Your task to perform on an android device: open the mobile data screen to see how much data has been used Image 0: 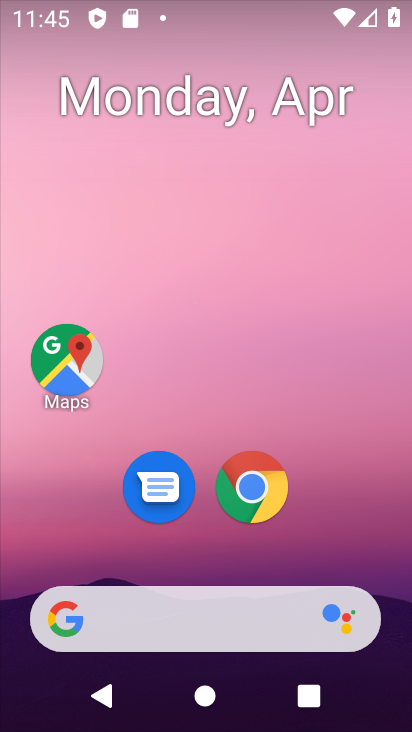
Step 0: drag from (382, 485) to (239, 128)
Your task to perform on an android device: open the mobile data screen to see how much data has been used Image 1: 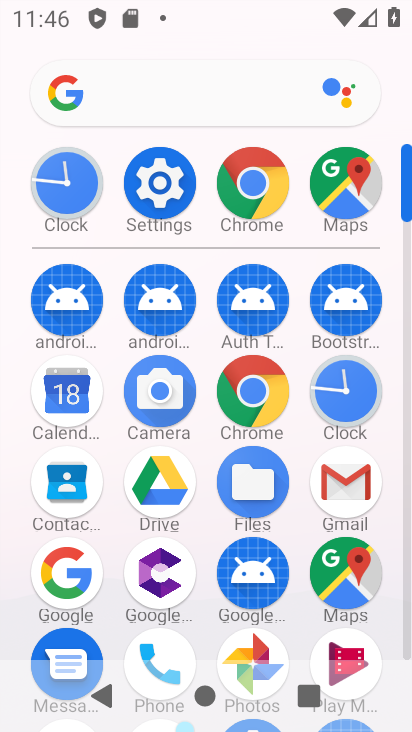
Step 1: click (169, 186)
Your task to perform on an android device: open the mobile data screen to see how much data has been used Image 2: 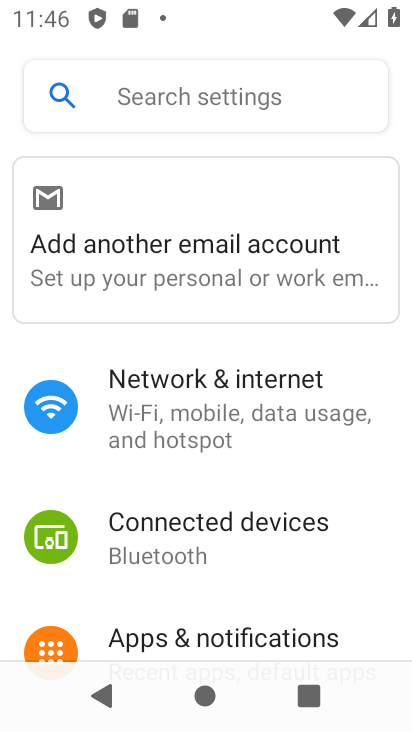
Step 2: drag from (361, 599) to (306, 223)
Your task to perform on an android device: open the mobile data screen to see how much data has been used Image 3: 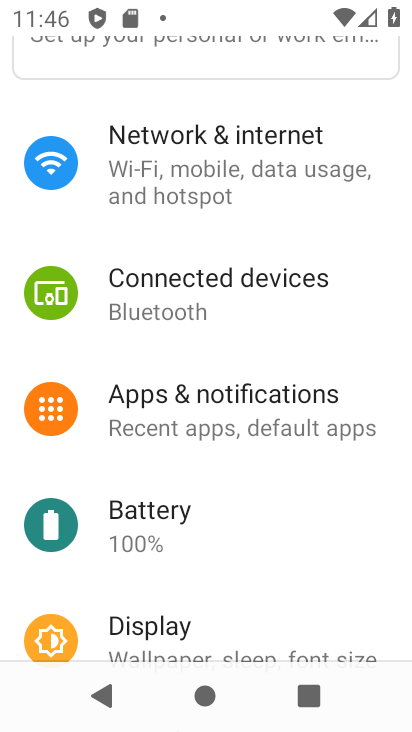
Step 3: click (368, 152)
Your task to perform on an android device: open the mobile data screen to see how much data has been used Image 4: 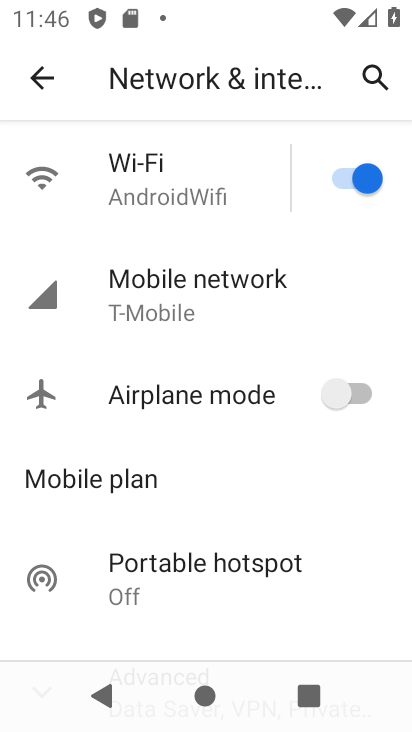
Step 4: click (219, 315)
Your task to perform on an android device: open the mobile data screen to see how much data has been used Image 5: 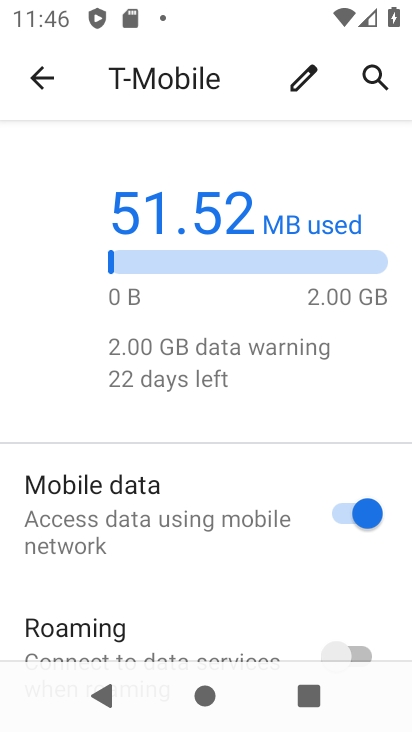
Step 5: task complete